Your task to perform on an android device: turn off wifi Image 0: 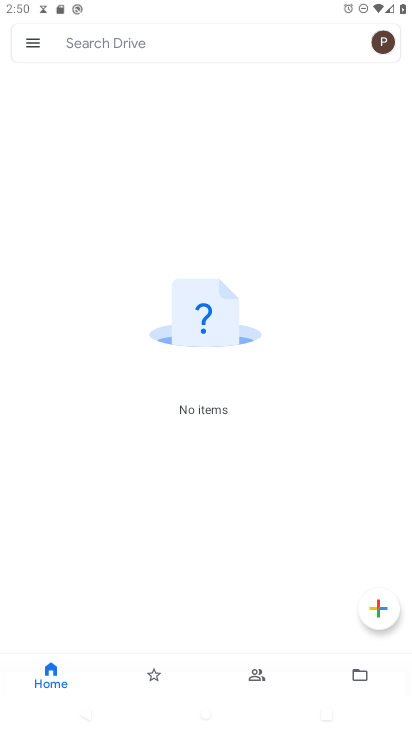
Step 0: press home button
Your task to perform on an android device: turn off wifi Image 1: 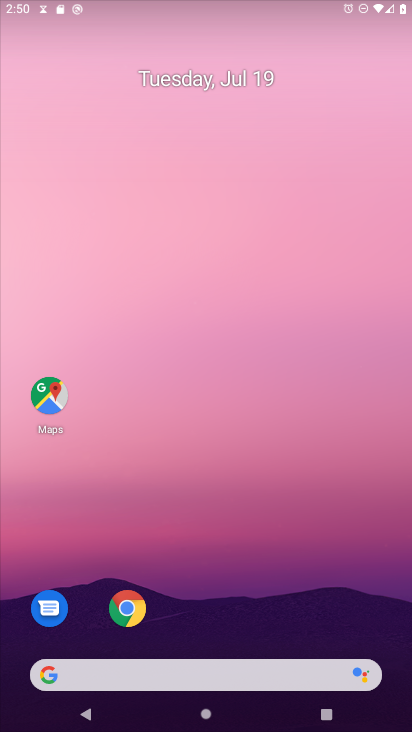
Step 1: drag from (300, 665) to (409, 88)
Your task to perform on an android device: turn off wifi Image 2: 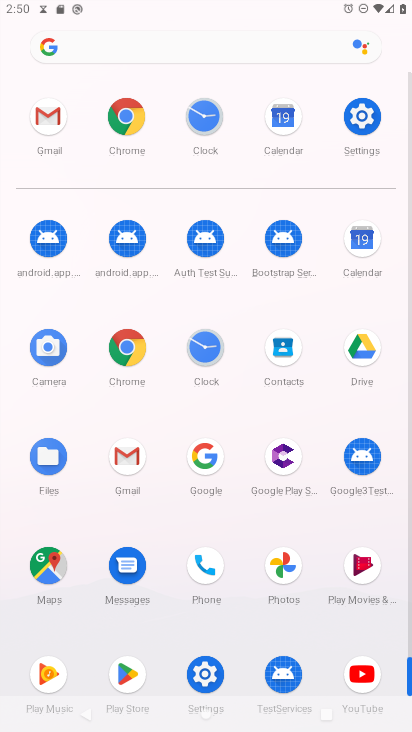
Step 2: click (353, 108)
Your task to perform on an android device: turn off wifi Image 3: 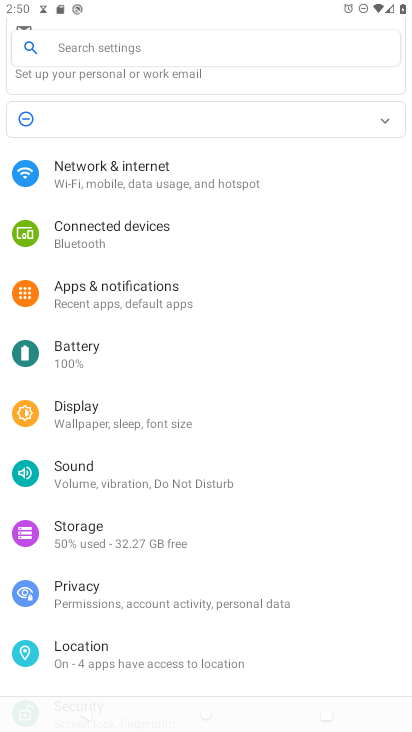
Step 3: click (177, 188)
Your task to perform on an android device: turn off wifi Image 4: 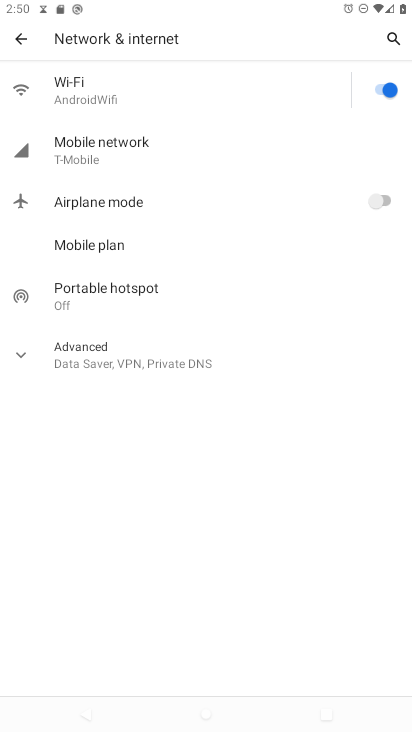
Step 4: click (375, 90)
Your task to perform on an android device: turn off wifi Image 5: 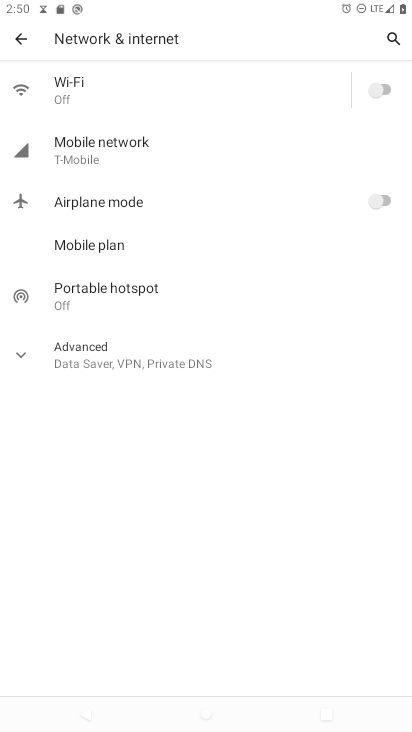
Step 5: task complete